Your task to perform on an android device: toggle notifications settings in the gmail app Image 0: 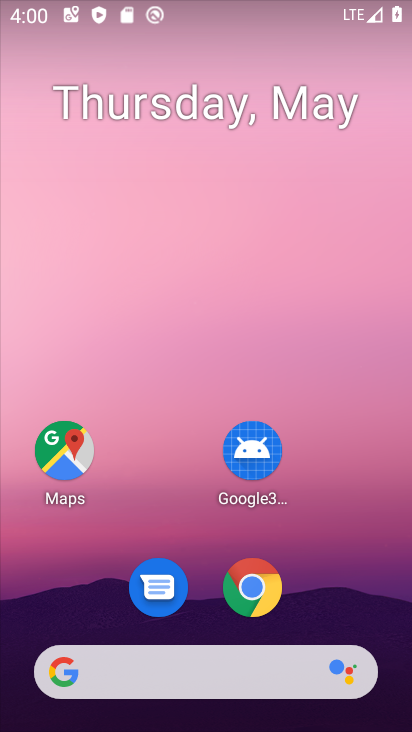
Step 0: drag from (205, 667) to (111, 129)
Your task to perform on an android device: toggle notifications settings in the gmail app Image 1: 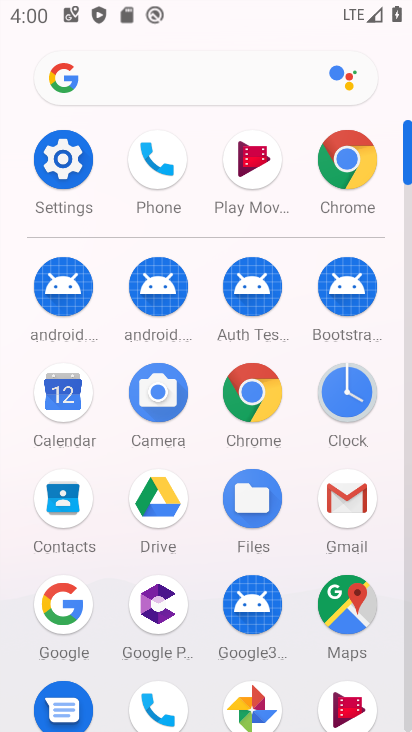
Step 1: click (337, 521)
Your task to perform on an android device: toggle notifications settings in the gmail app Image 2: 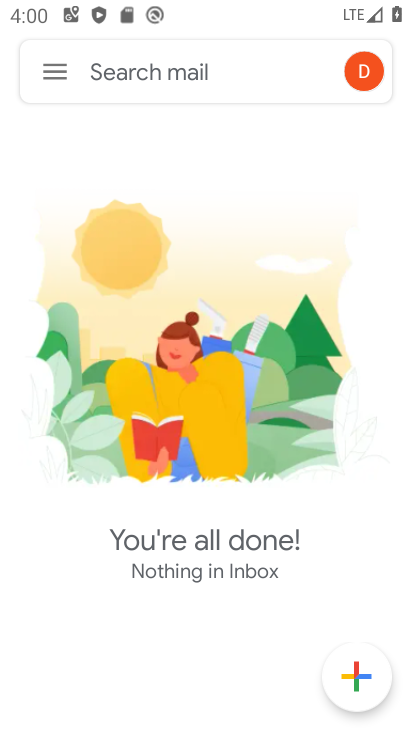
Step 2: click (52, 82)
Your task to perform on an android device: toggle notifications settings in the gmail app Image 3: 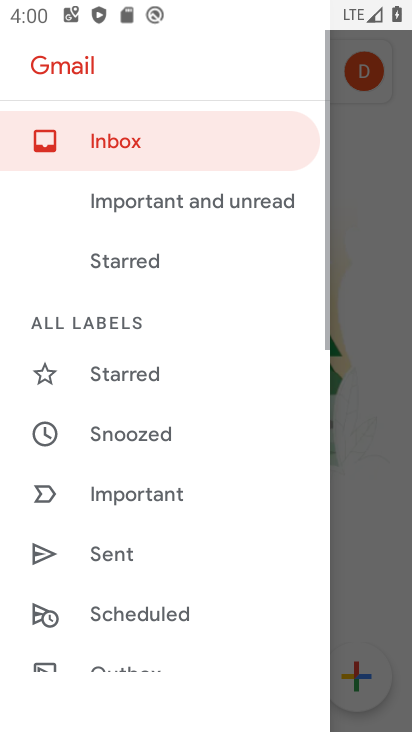
Step 3: drag from (139, 546) to (77, 19)
Your task to perform on an android device: toggle notifications settings in the gmail app Image 4: 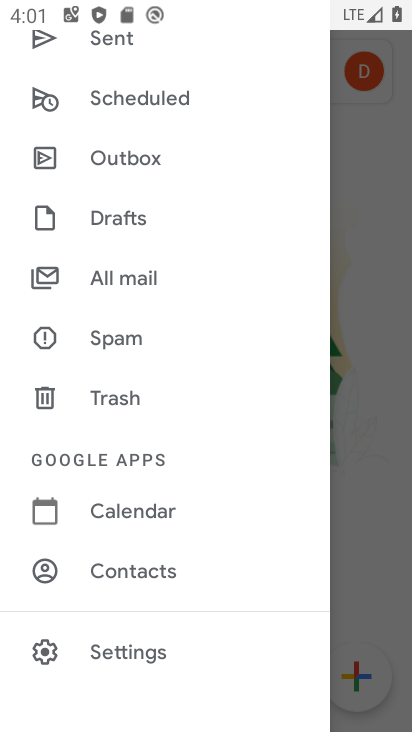
Step 4: click (85, 664)
Your task to perform on an android device: toggle notifications settings in the gmail app Image 5: 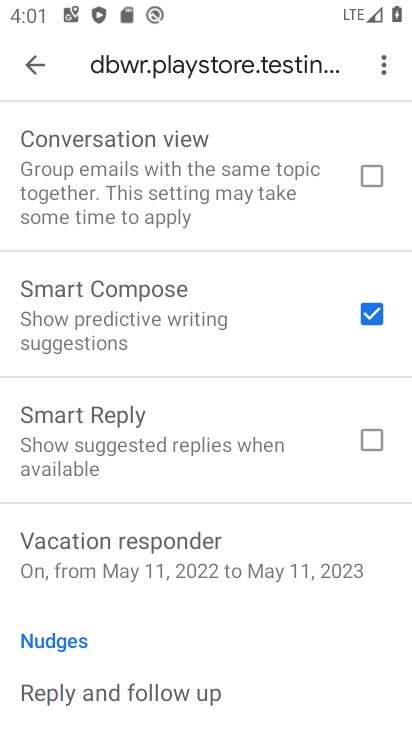
Step 5: drag from (93, 386) to (183, 623)
Your task to perform on an android device: toggle notifications settings in the gmail app Image 6: 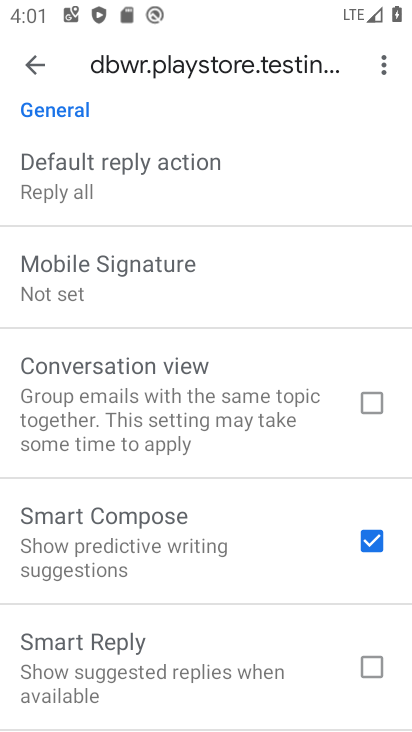
Step 6: drag from (165, 326) to (193, 531)
Your task to perform on an android device: toggle notifications settings in the gmail app Image 7: 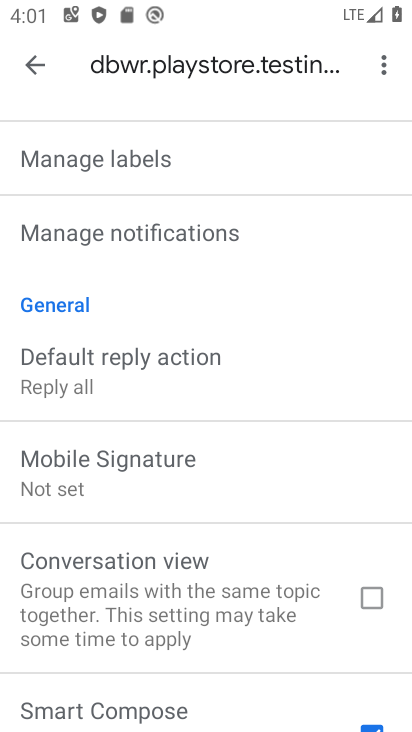
Step 7: click (177, 247)
Your task to perform on an android device: toggle notifications settings in the gmail app Image 8: 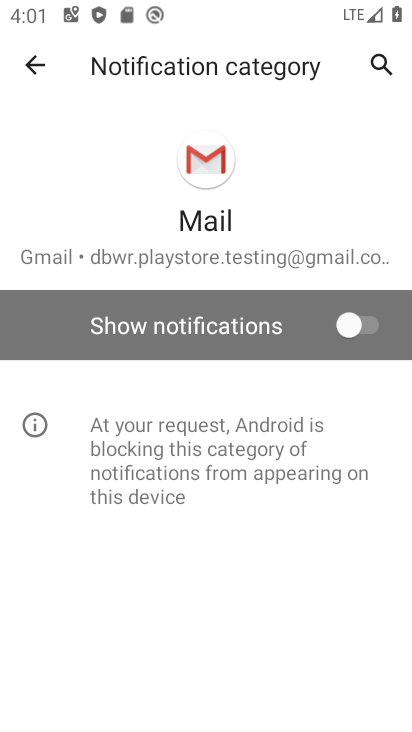
Step 8: click (236, 330)
Your task to perform on an android device: toggle notifications settings in the gmail app Image 9: 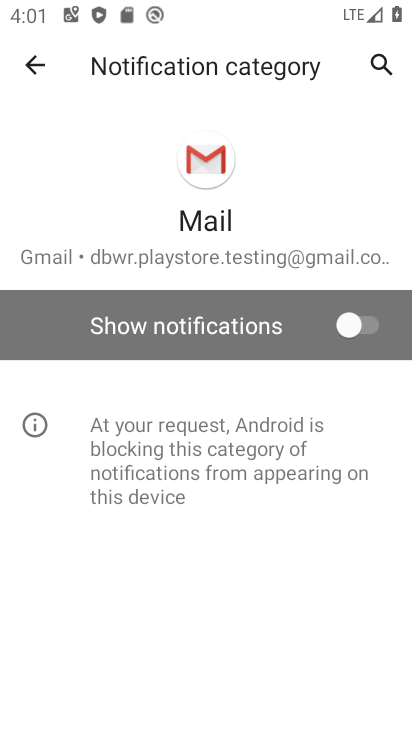
Step 9: task complete